Your task to perform on an android device: allow cookies in the chrome app Image 0: 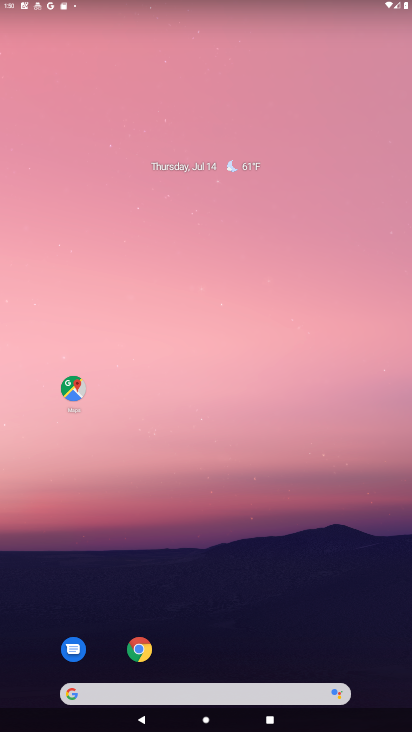
Step 0: drag from (160, 676) to (238, 7)
Your task to perform on an android device: allow cookies in the chrome app Image 1: 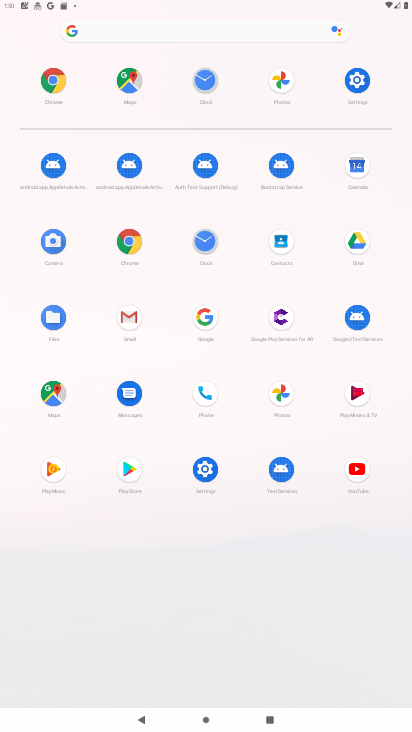
Step 1: click (124, 238)
Your task to perform on an android device: allow cookies in the chrome app Image 2: 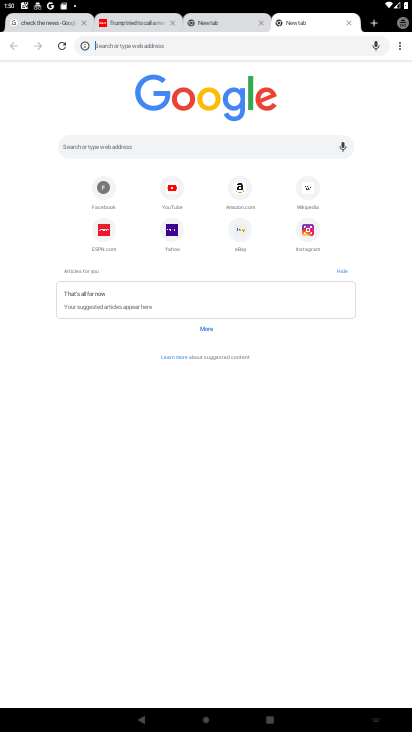
Step 2: drag from (397, 45) to (322, 213)
Your task to perform on an android device: allow cookies in the chrome app Image 3: 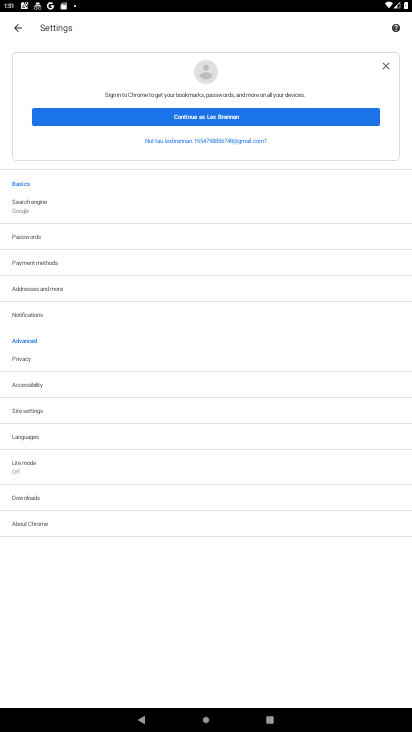
Step 3: click (20, 408)
Your task to perform on an android device: allow cookies in the chrome app Image 4: 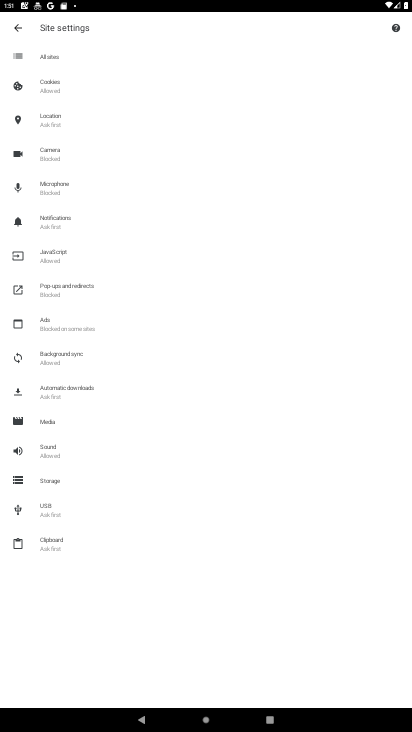
Step 4: click (42, 97)
Your task to perform on an android device: allow cookies in the chrome app Image 5: 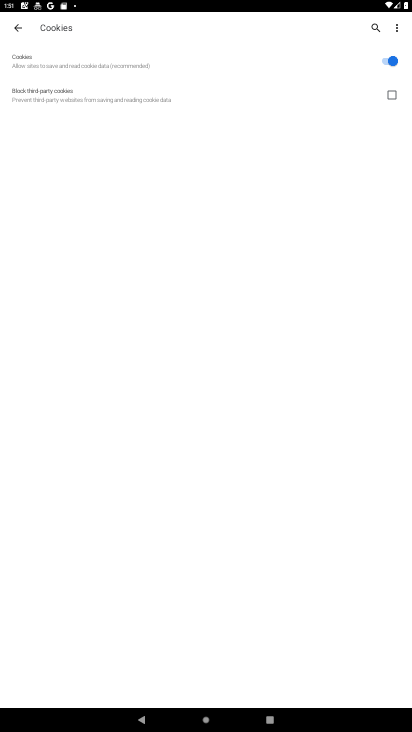
Step 5: task complete